Your task to perform on an android device: Go to notification settings Image 0: 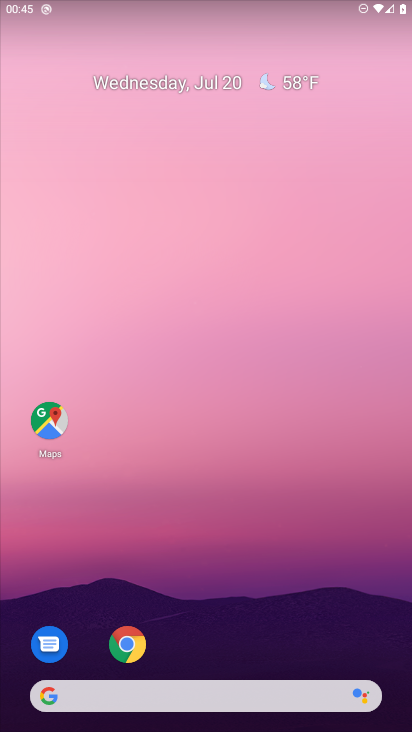
Step 0: drag from (38, 631) to (182, 104)
Your task to perform on an android device: Go to notification settings Image 1: 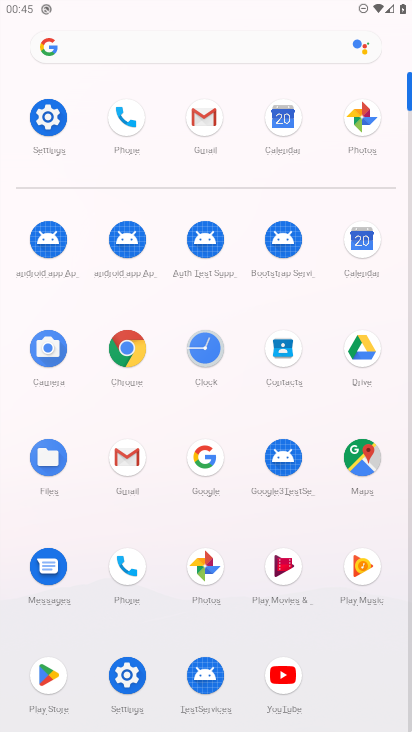
Step 1: click (123, 677)
Your task to perform on an android device: Go to notification settings Image 2: 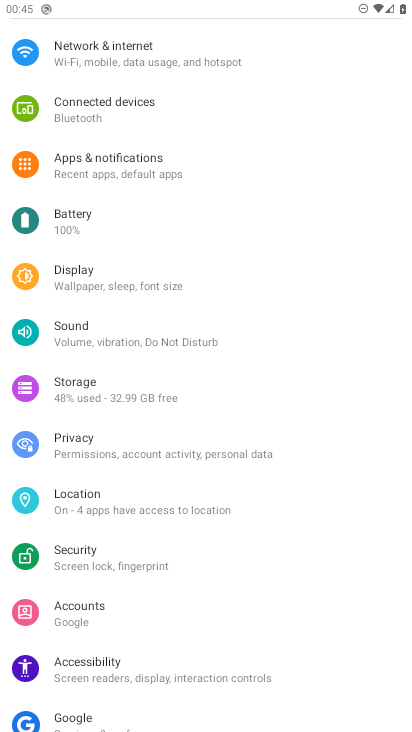
Step 2: click (215, 470)
Your task to perform on an android device: Go to notification settings Image 3: 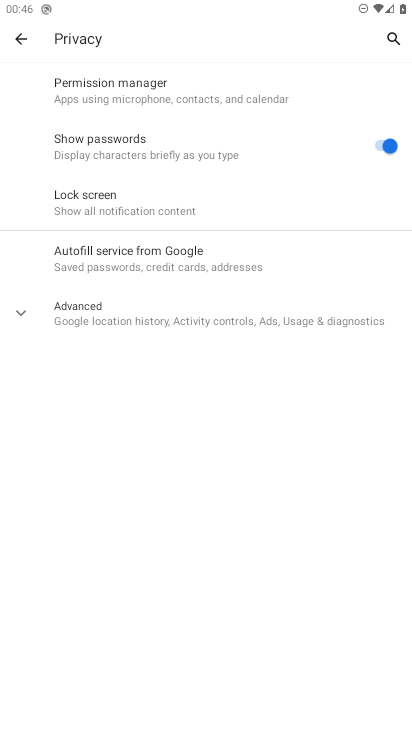
Step 3: click (21, 36)
Your task to perform on an android device: Go to notification settings Image 4: 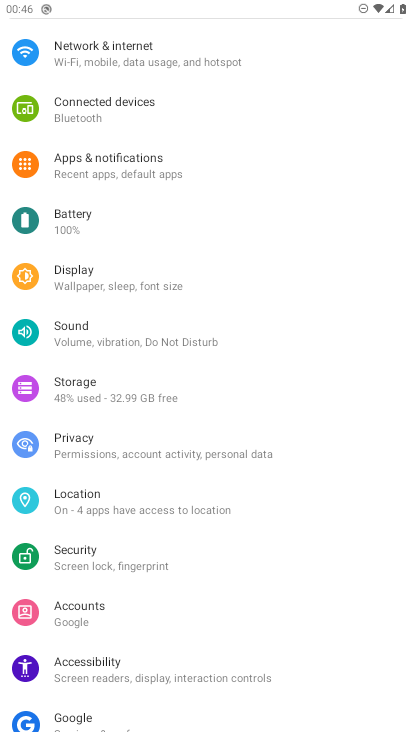
Step 4: click (106, 159)
Your task to perform on an android device: Go to notification settings Image 5: 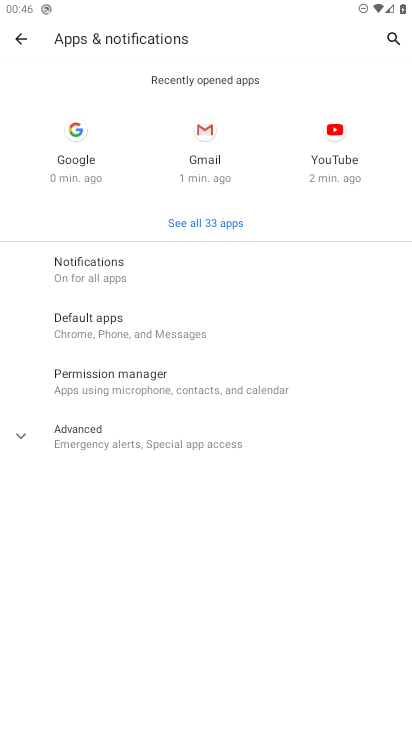
Step 5: task complete